Your task to perform on an android device: turn off airplane mode Image 0: 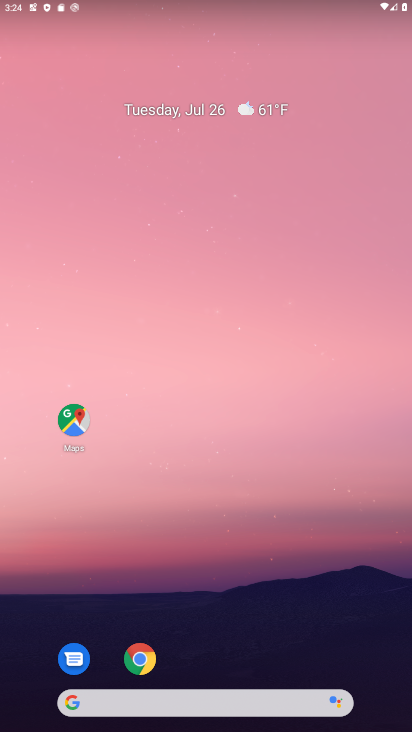
Step 0: drag from (199, 309) to (206, 253)
Your task to perform on an android device: turn off airplane mode Image 1: 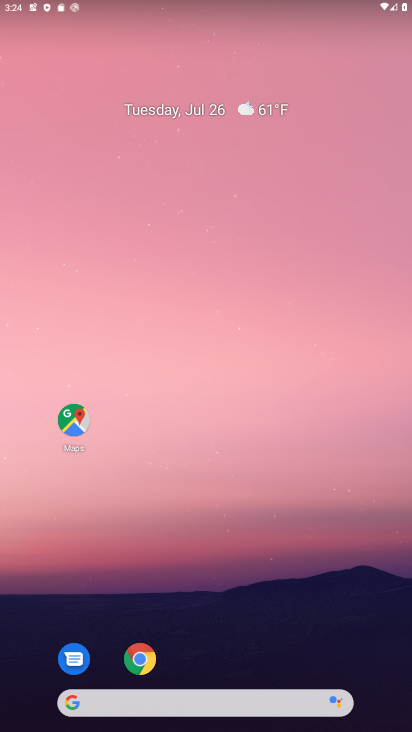
Step 1: drag from (181, 579) to (196, 107)
Your task to perform on an android device: turn off airplane mode Image 2: 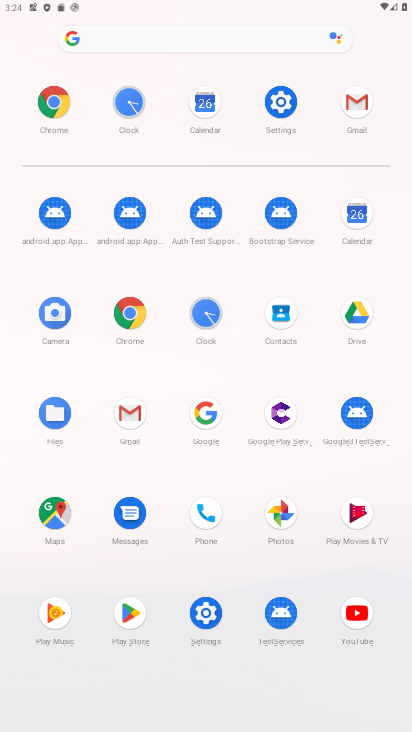
Step 2: click (211, 620)
Your task to perform on an android device: turn off airplane mode Image 3: 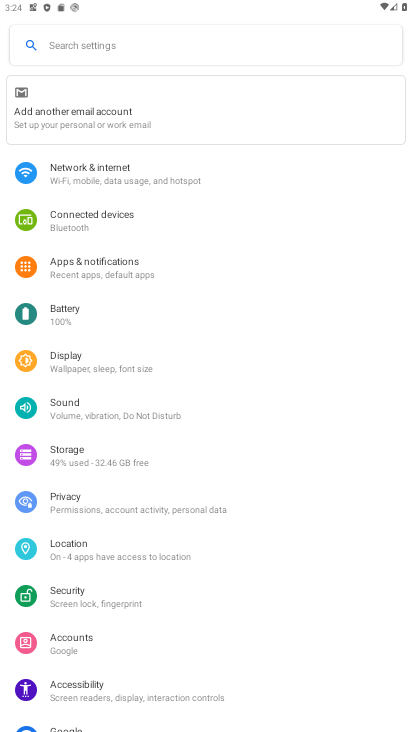
Step 3: click (107, 177)
Your task to perform on an android device: turn off airplane mode Image 4: 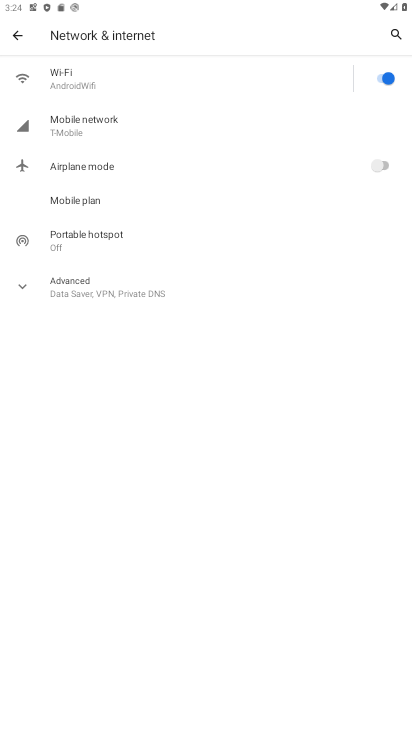
Step 4: task complete